Your task to perform on an android device: read, delete, or share a saved page in the chrome app Image 0: 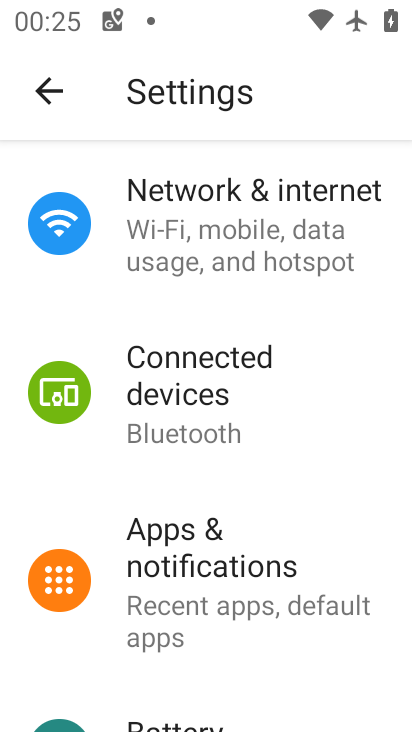
Step 0: press home button
Your task to perform on an android device: read, delete, or share a saved page in the chrome app Image 1: 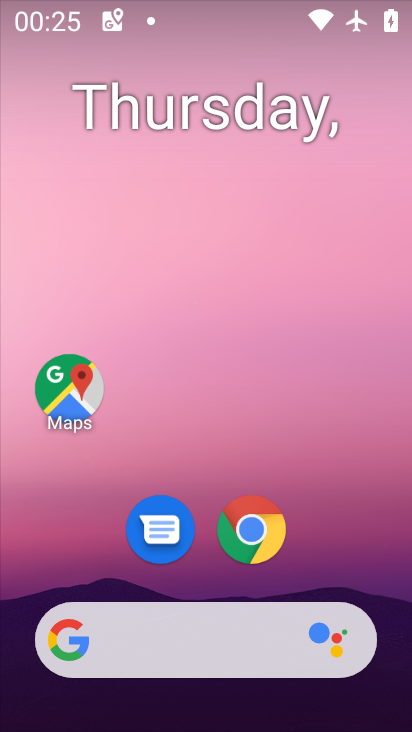
Step 1: click (252, 529)
Your task to perform on an android device: read, delete, or share a saved page in the chrome app Image 2: 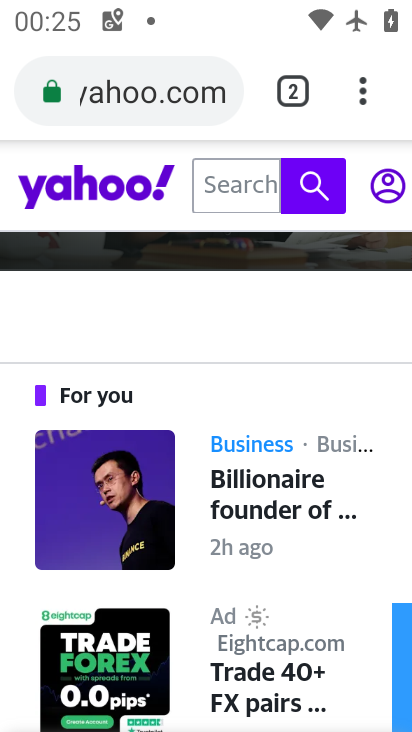
Step 2: click (362, 106)
Your task to perform on an android device: read, delete, or share a saved page in the chrome app Image 3: 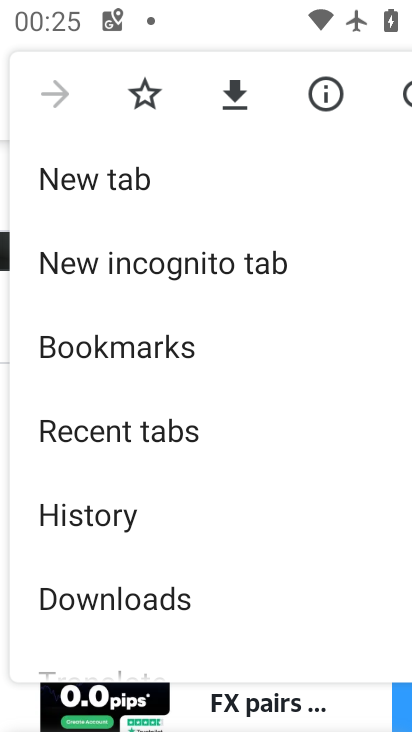
Step 3: click (104, 598)
Your task to perform on an android device: read, delete, or share a saved page in the chrome app Image 4: 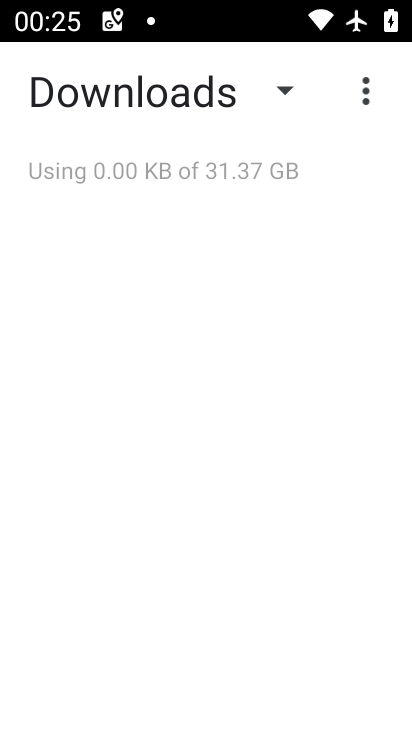
Step 4: click (282, 88)
Your task to perform on an android device: read, delete, or share a saved page in the chrome app Image 5: 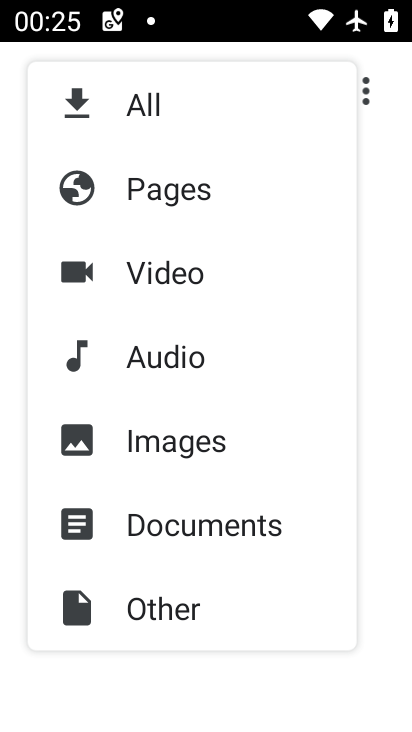
Step 5: click (160, 193)
Your task to perform on an android device: read, delete, or share a saved page in the chrome app Image 6: 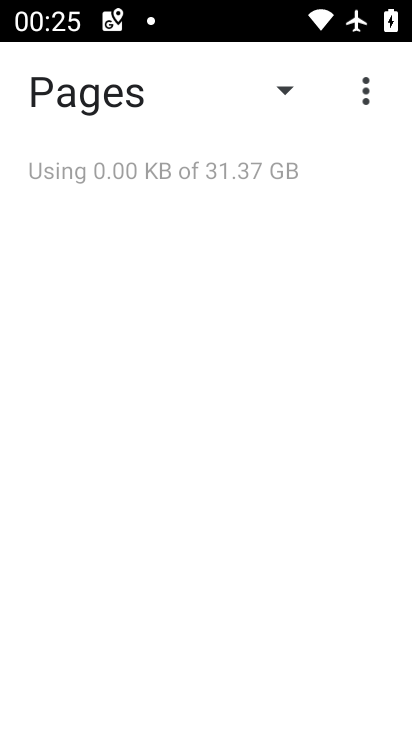
Step 6: task complete